Your task to perform on an android device: visit the assistant section in the google photos Image 0: 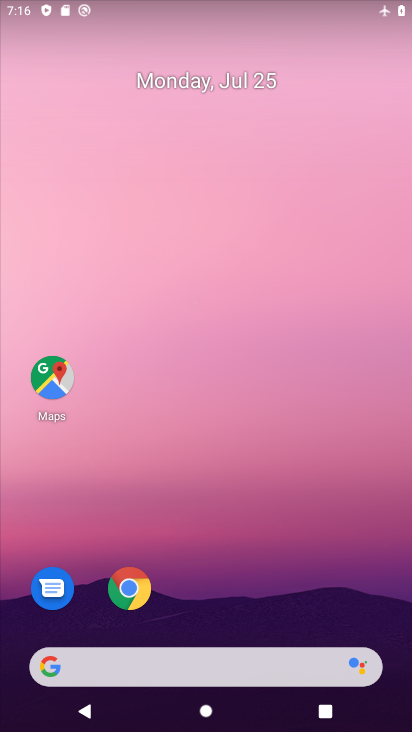
Step 0: drag from (240, 524) to (277, 220)
Your task to perform on an android device: visit the assistant section in the google photos Image 1: 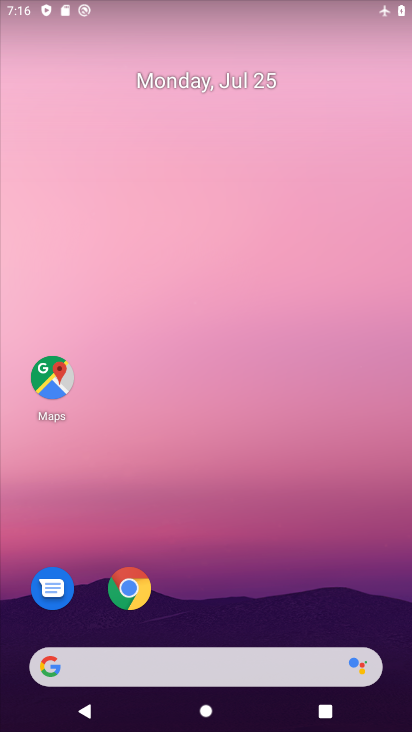
Step 1: drag from (272, 378) to (269, 182)
Your task to perform on an android device: visit the assistant section in the google photos Image 2: 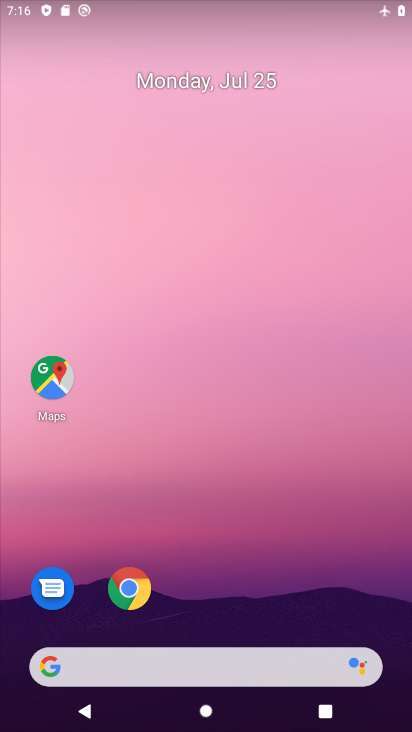
Step 2: drag from (268, 524) to (303, 177)
Your task to perform on an android device: visit the assistant section in the google photos Image 3: 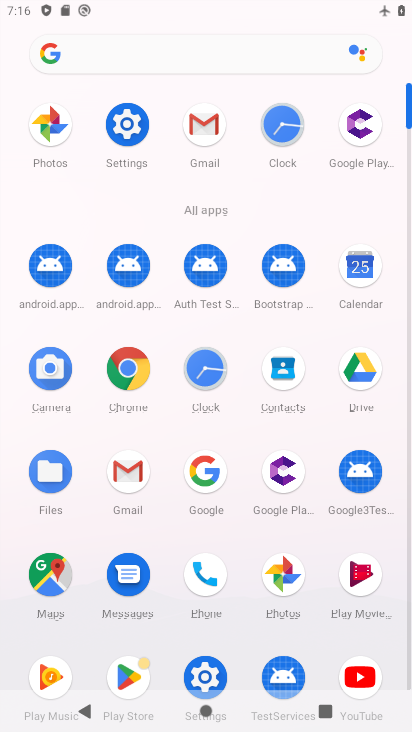
Step 3: click (279, 582)
Your task to perform on an android device: visit the assistant section in the google photos Image 4: 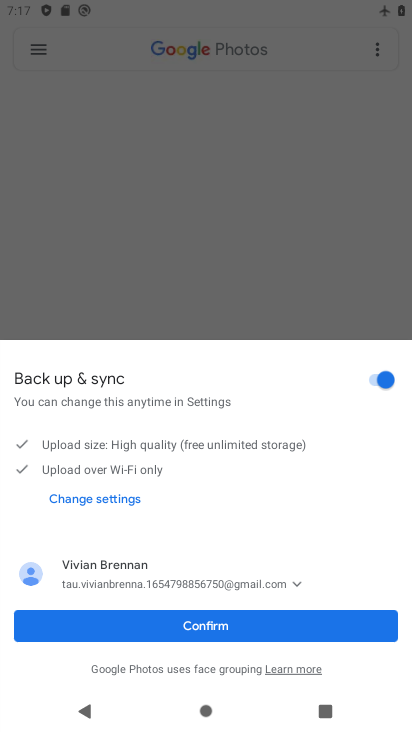
Step 4: click (216, 625)
Your task to perform on an android device: visit the assistant section in the google photos Image 5: 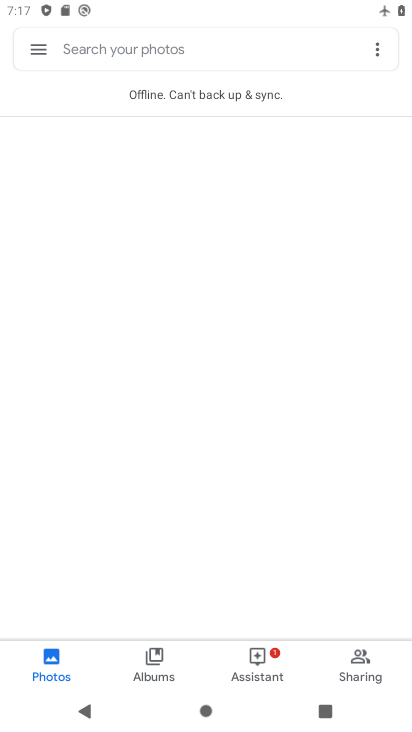
Step 5: task complete